Your task to perform on an android device: snooze an email in the gmail app Image 0: 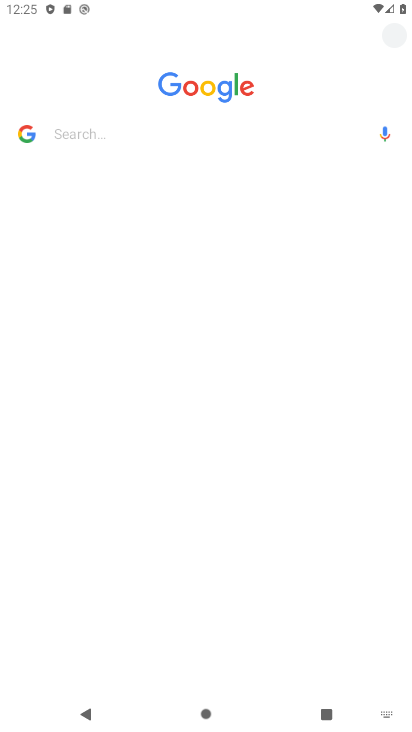
Step 0: press home button
Your task to perform on an android device: snooze an email in the gmail app Image 1: 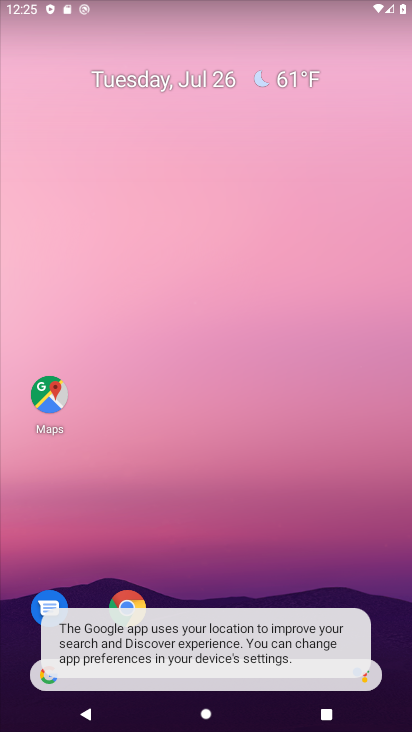
Step 1: drag from (340, 539) to (333, 56)
Your task to perform on an android device: snooze an email in the gmail app Image 2: 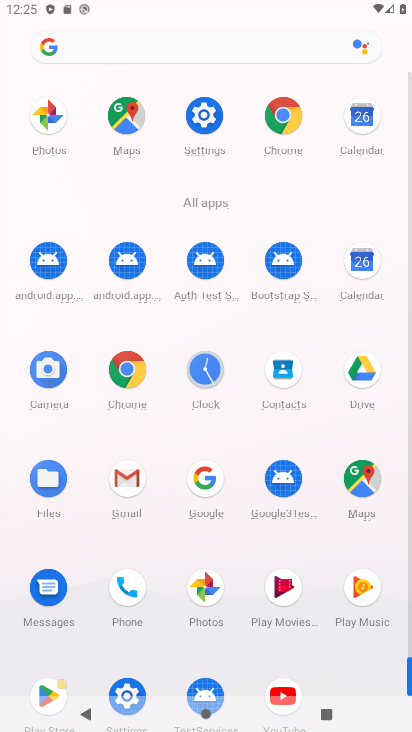
Step 2: click (133, 484)
Your task to perform on an android device: snooze an email in the gmail app Image 3: 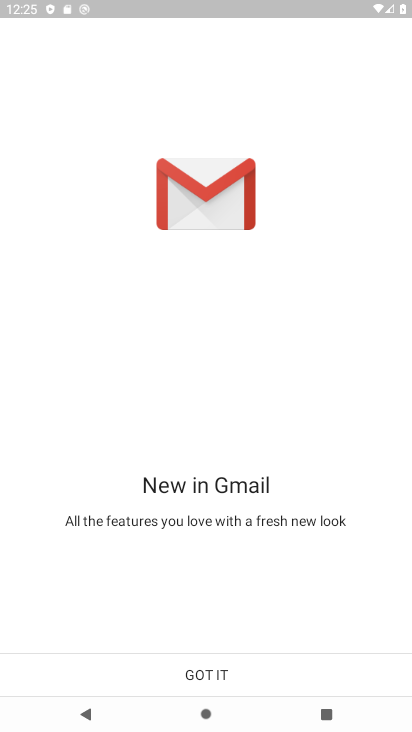
Step 3: click (222, 674)
Your task to perform on an android device: snooze an email in the gmail app Image 4: 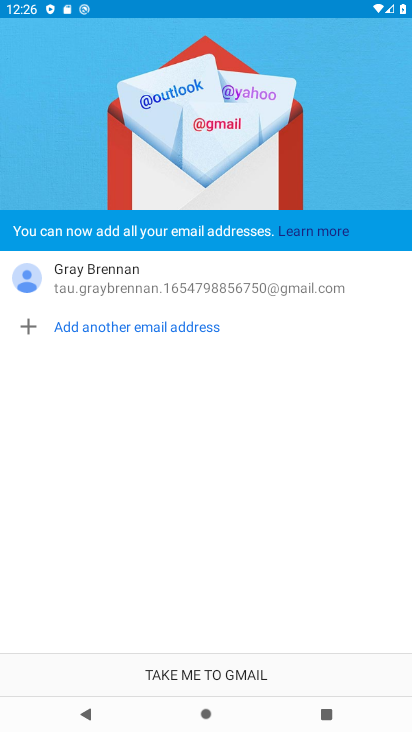
Step 4: click (222, 674)
Your task to perform on an android device: snooze an email in the gmail app Image 5: 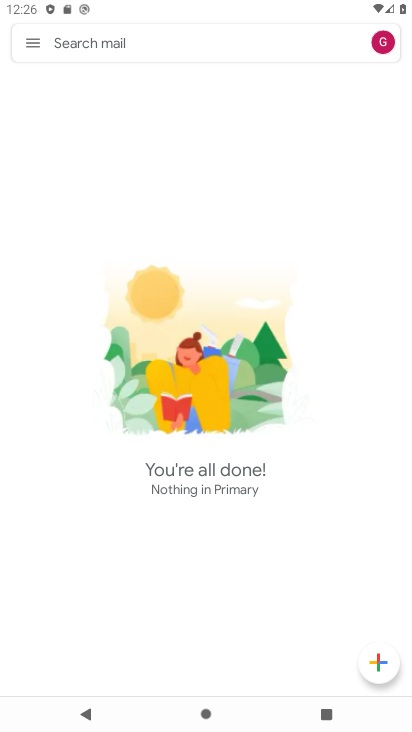
Step 5: click (35, 48)
Your task to perform on an android device: snooze an email in the gmail app Image 6: 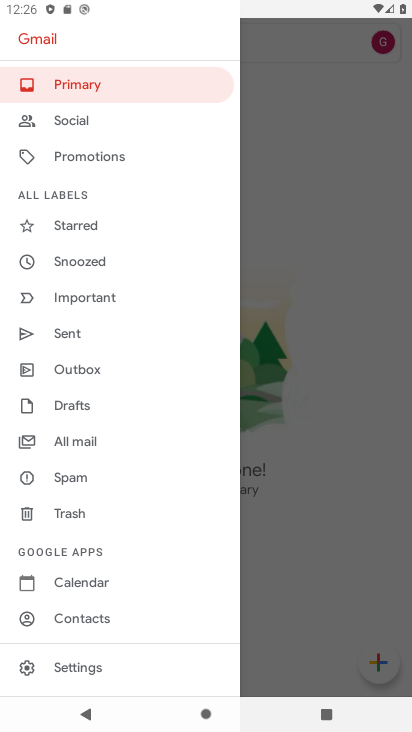
Step 6: drag from (164, 414) to (174, 340)
Your task to perform on an android device: snooze an email in the gmail app Image 7: 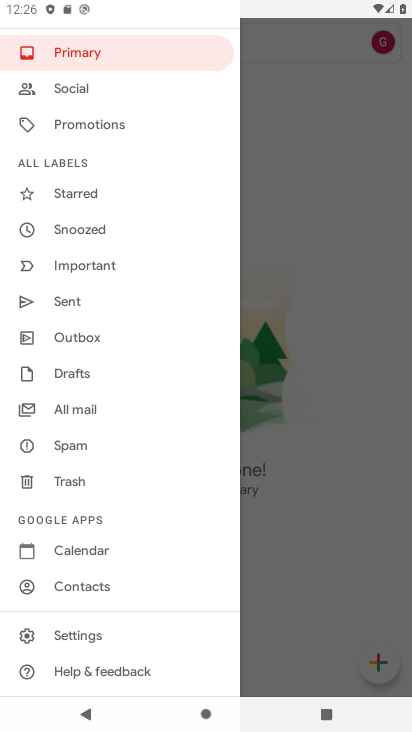
Step 7: drag from (169, 507) to (172, 418)
Your task to perform on an android device: snooze an email in the gmail app Image 8: 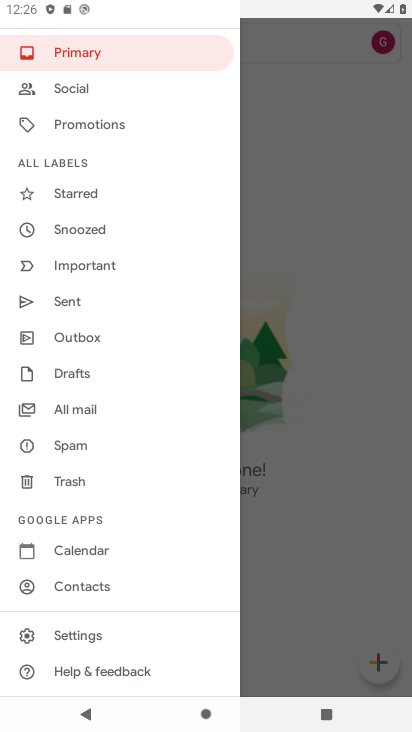
Step 8: drag from (150, 285) to (151, 390)
Your task to perform on an android device: snooze an email in the gmail app Image 9: 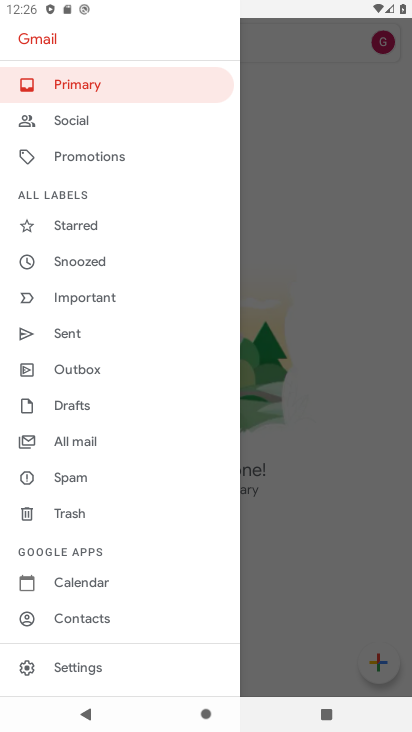
Step 9: click (130, 272)
Your task to perform on an android device: snooze an email in the gmail app Image 10: 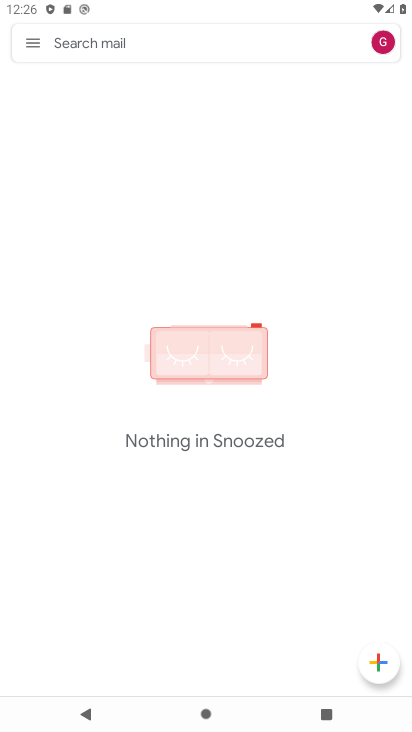
Step 10: task complete